Your task to perform on an android device: Open the Play Movies app and select the watchlist tab. Image 0: 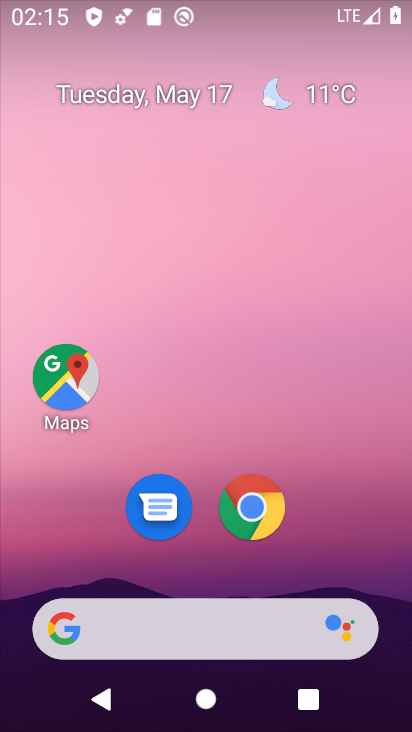
Step 0: drag from (214, 539) to (392, 312)
Your task to perform on an android device: Open the Play Movies app and select the watchlist tab. Image 1: 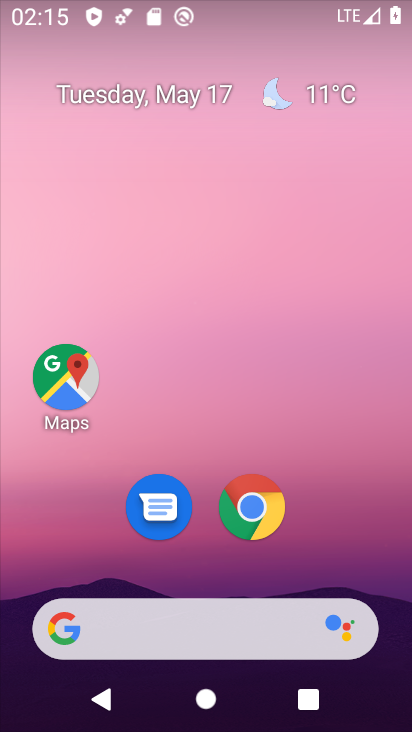
Step 1: drag from (180, 565) to (260, 16)
Your task to perform on an android device: Open the Play Movies app and select the watchlist tab. Image 2: 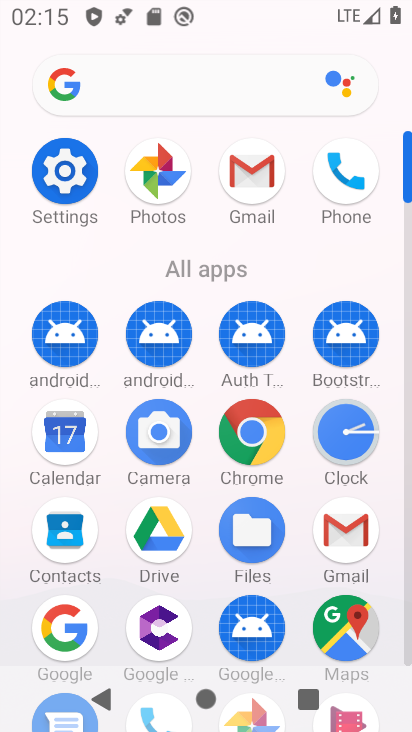
Step 2: drag from (292, 704) to (274, 112)
Your task to perform on an android device: Open the Play Movies app and select the watchlist tab. Image 3: 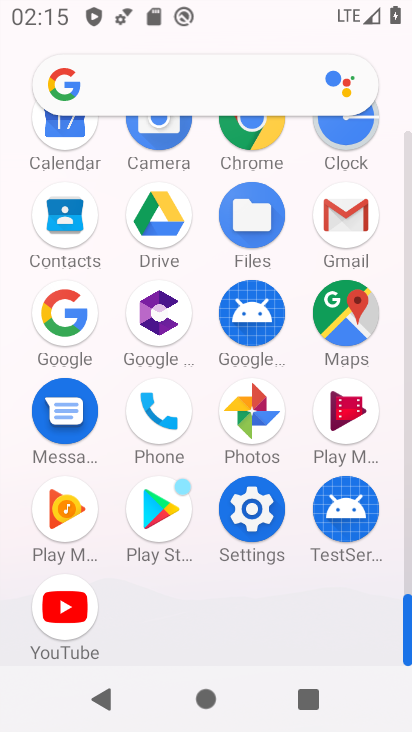
Step 3: click (363, 431)
Your task to perform on an android device: Open the Play Movies app and select the watchlist tab. Image 4: 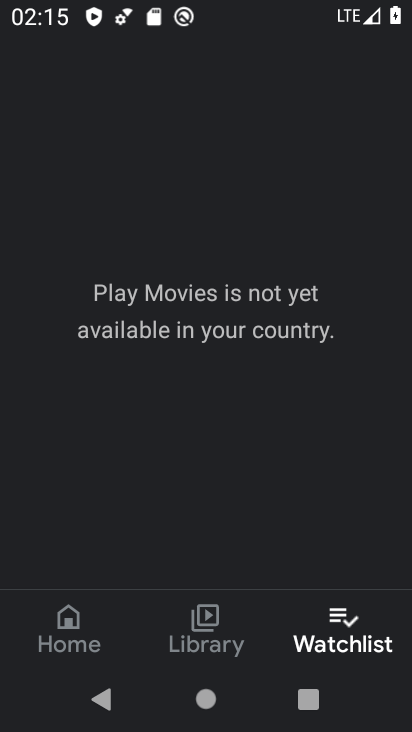
Step 4: task complete